Your task to perform on an android device: set the timer Image 0: 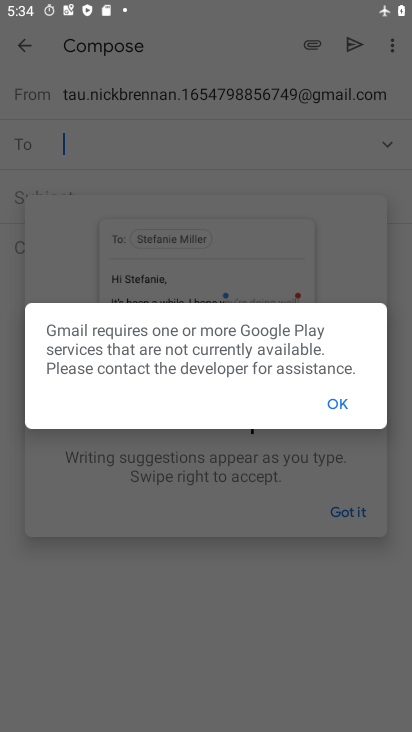
Step 0: press home button
Your task to perform on an android device: set the timer Image 1: 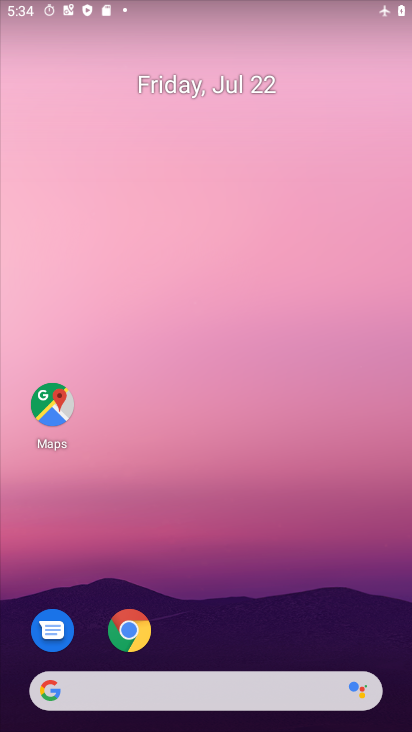
Step 1: drag from (204, 705) to (229, 28)
Your task to perform on an android device: set the timer Image 2: 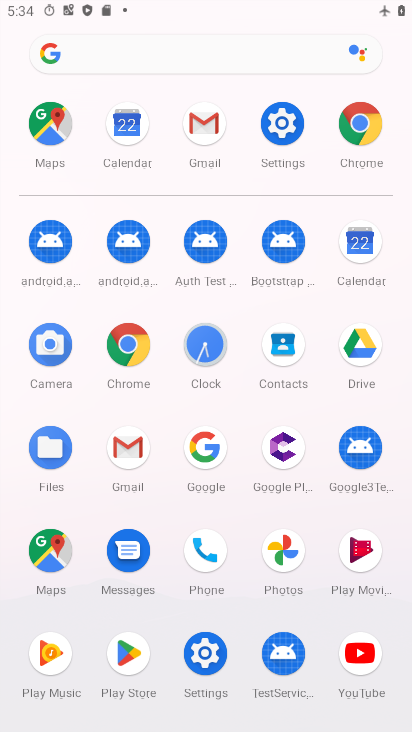
Step 2: click (203, 345)
Your task to perform on an android device: set the timer Image 3: 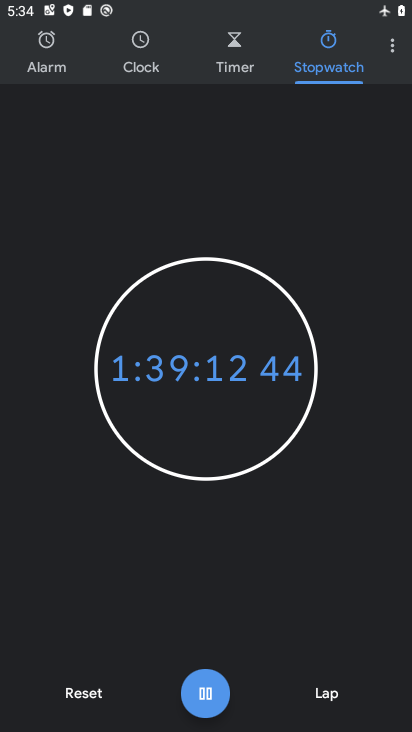
Step 3: click (245, 55)
Your task to perform on an android device: set the timer Image 4: 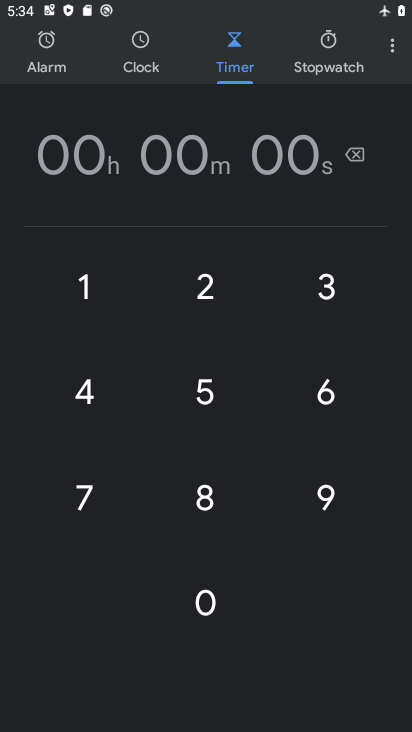
Step 4: task complete